Your task to perform on an android device: show emergency info Image 0: 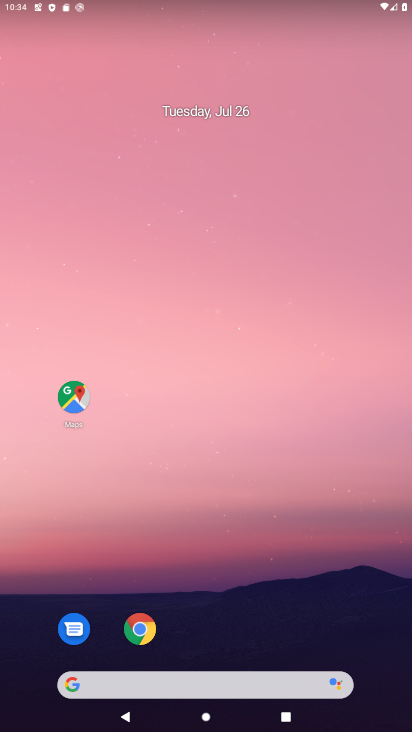
Step 0: drag from (225, 653) to (232, 7)
Your task to perform on an android device: show emergency info Image 1: 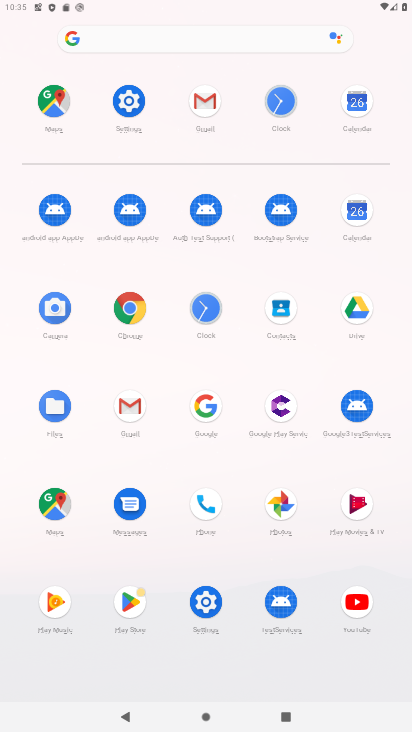
Step 1: click (204, 617)
Your task to perform on an android device: show emergency info Image 2: 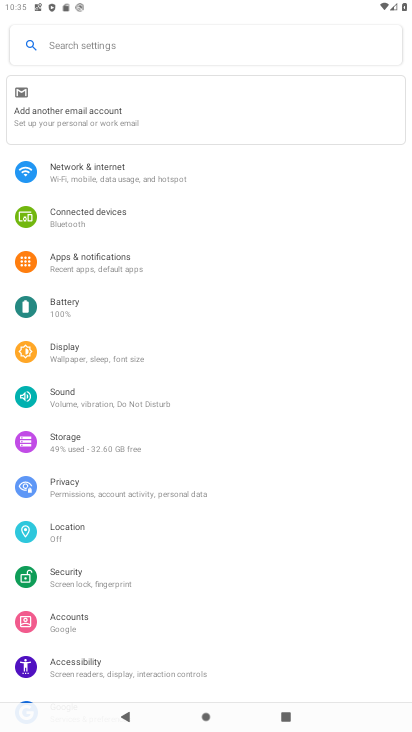
Step 2: drag from (165, 649) to (175, 287)
Your task to perform on an android device: show emergency info Image 3: 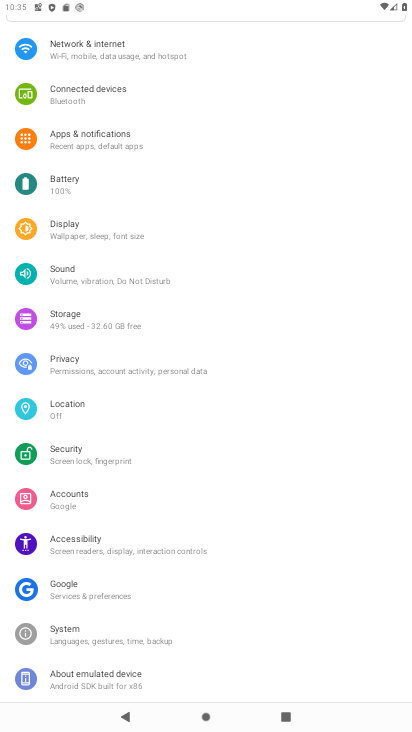
Step 3: click (144, 664)
Your task to perform on an android device: show emergency info Image 4: 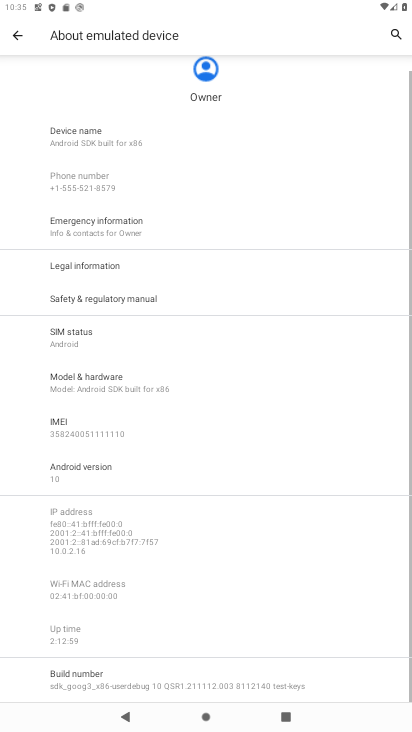
Step 4: task complete